Your task to perform on an android device: Open Amazon Image 0: 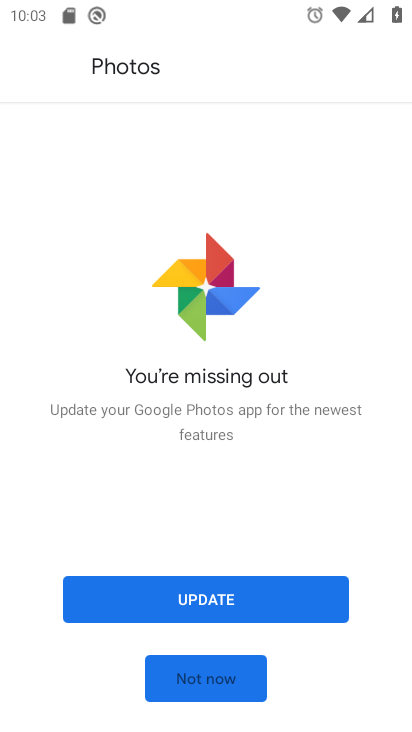
Step 0: press home button
Your task to perform on an android device: Open Amazon Image 1: 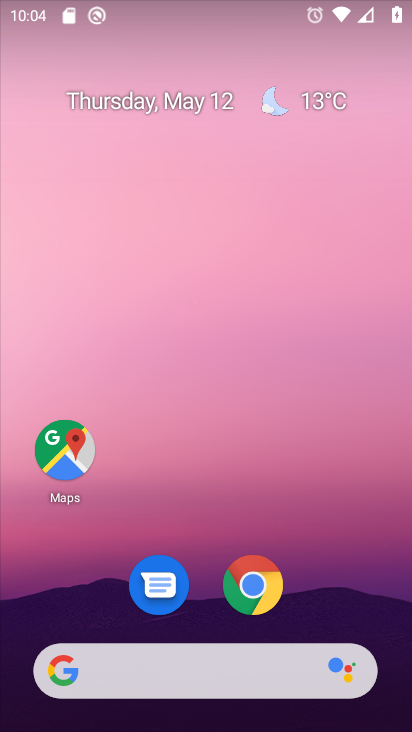
Step 1: click (258, 586)
Your task to perform on an android device: Open Amazon Image 2: 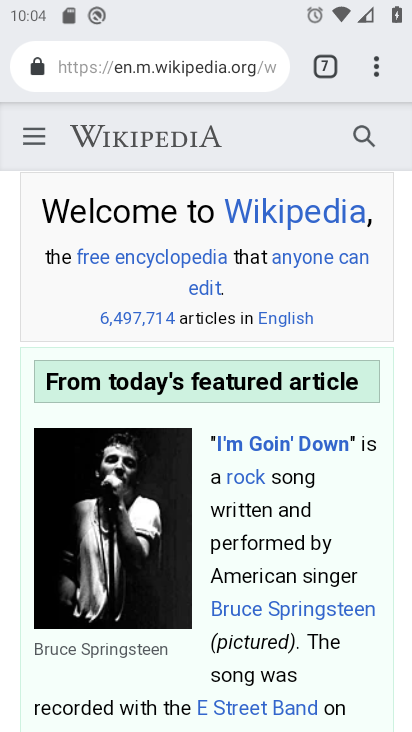
Step 2: click (378, 64)
Your task to perform on an android device: Open Amazon Image 3: 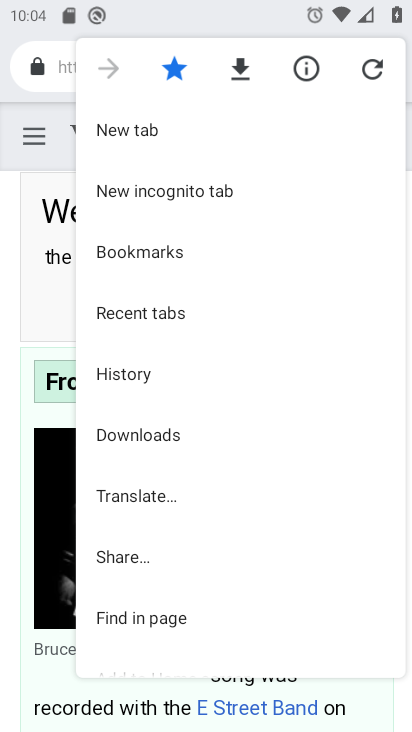
Step 3: click (291, 126)
Your task to perform on an android device: Open Amazon Image 4: 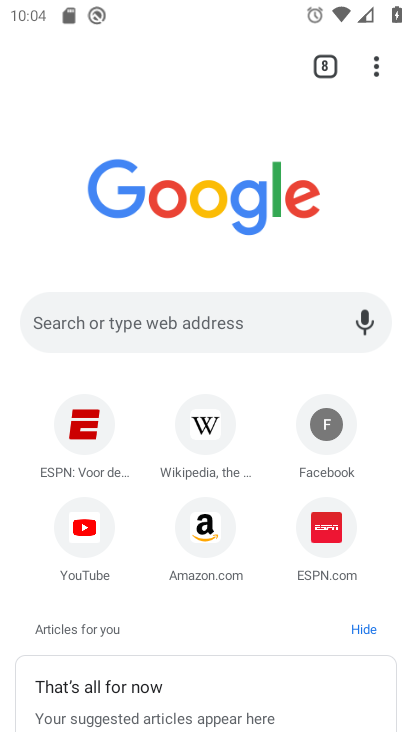
Step 4: click (203, 530)
Your task to perform on an android device: Open Amazon Image 5: 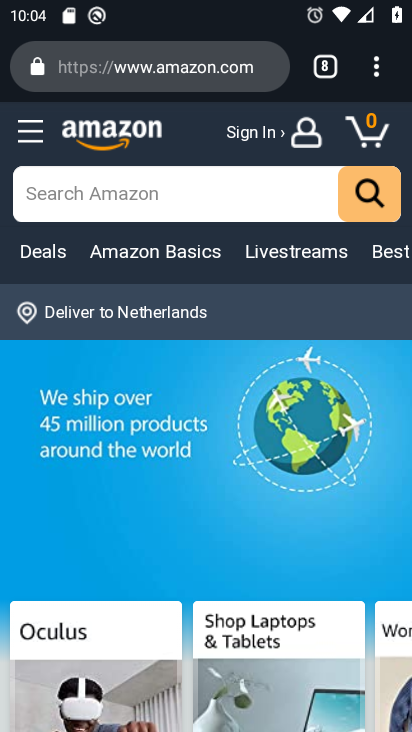
Step 5: task complete